Your task to perform on an android device: open app "Instagram" Image 0: 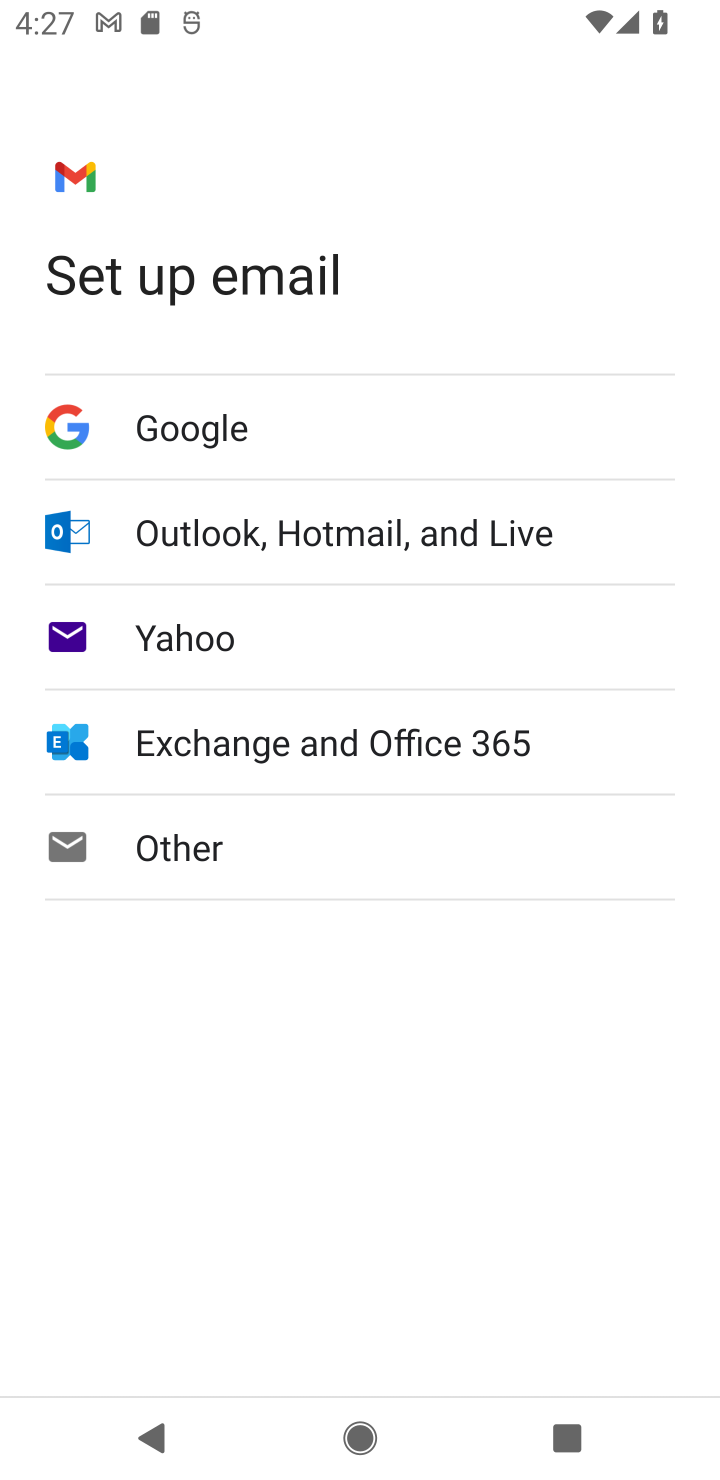
Step 0: press home button
Your task to perform on an android device: open app "Instagram" Image 1: 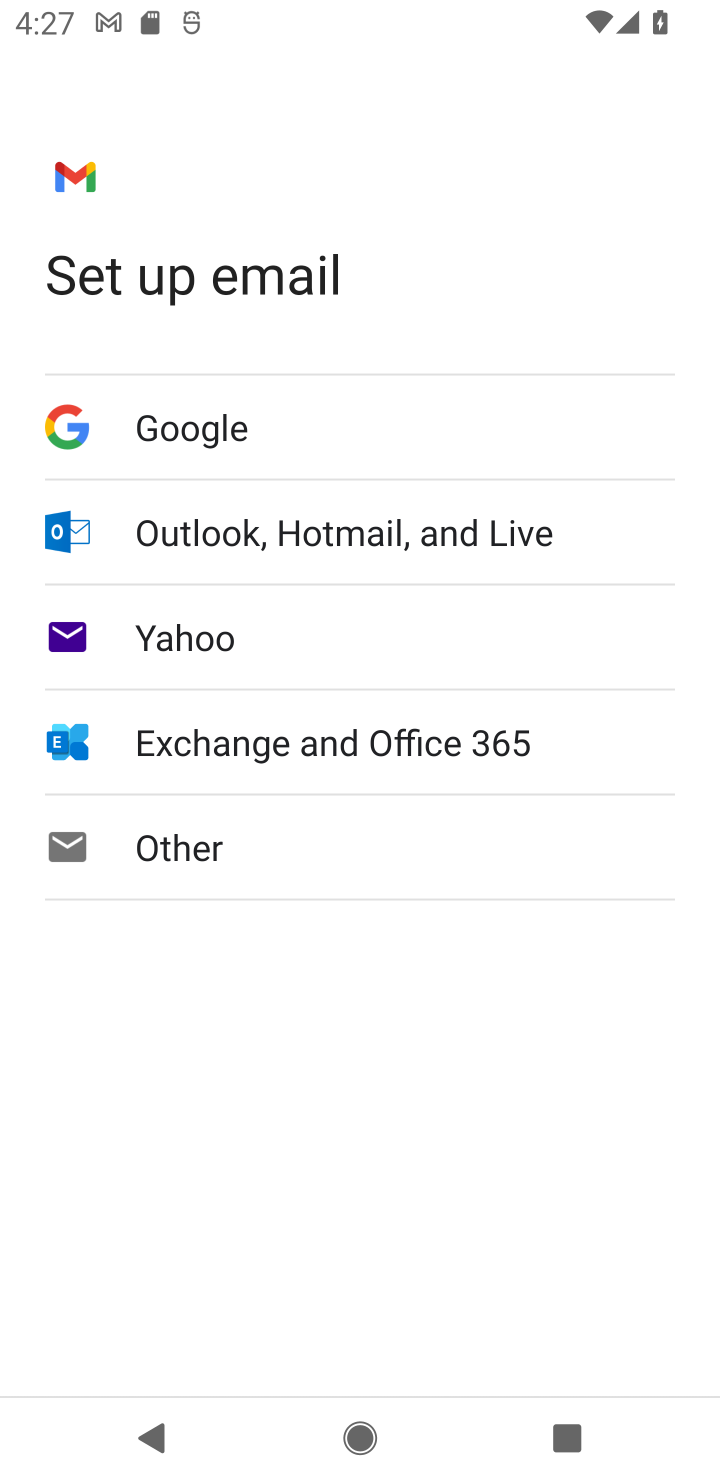
Step 1: press home button
Your task to perform on an android device: open app "Instagram" Image 2: 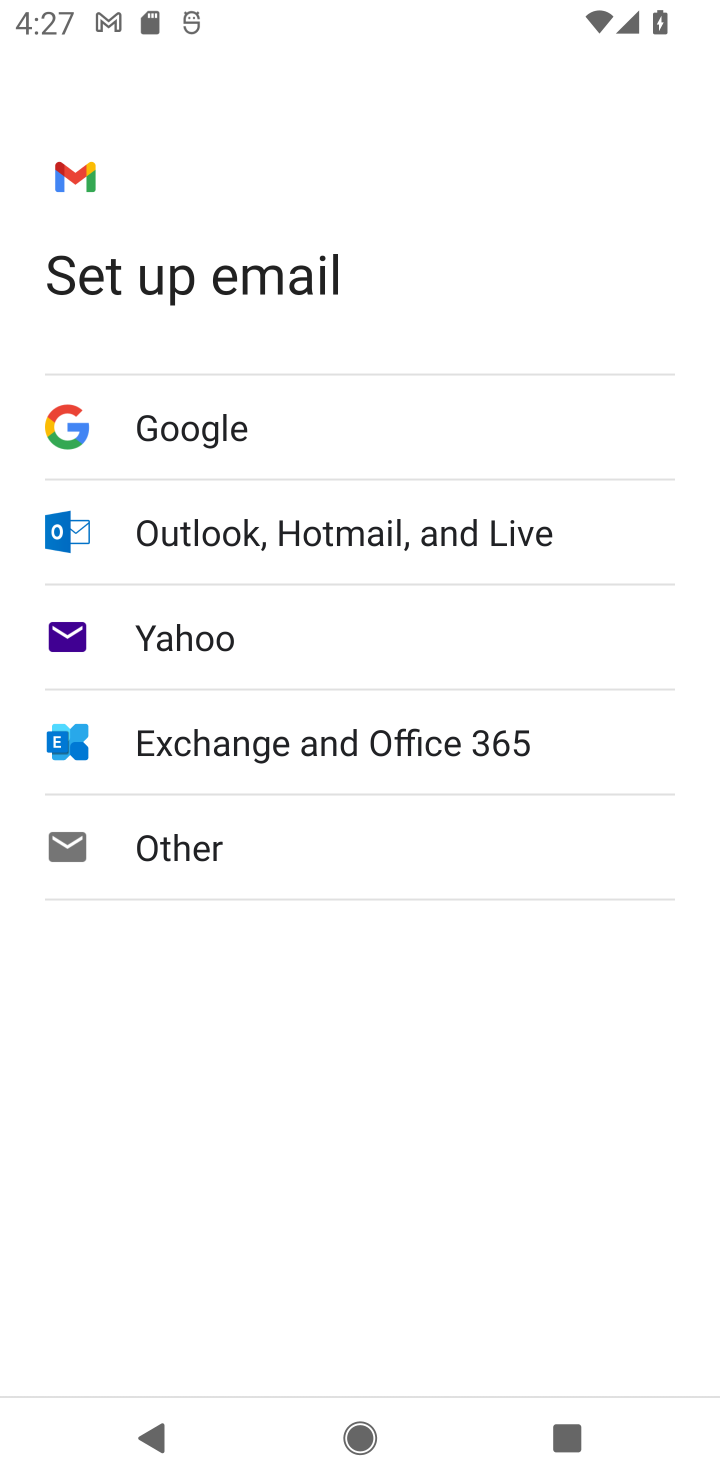
Step 2: press home button
Your task to perform on an android device: open app "Instagram" Image 3: 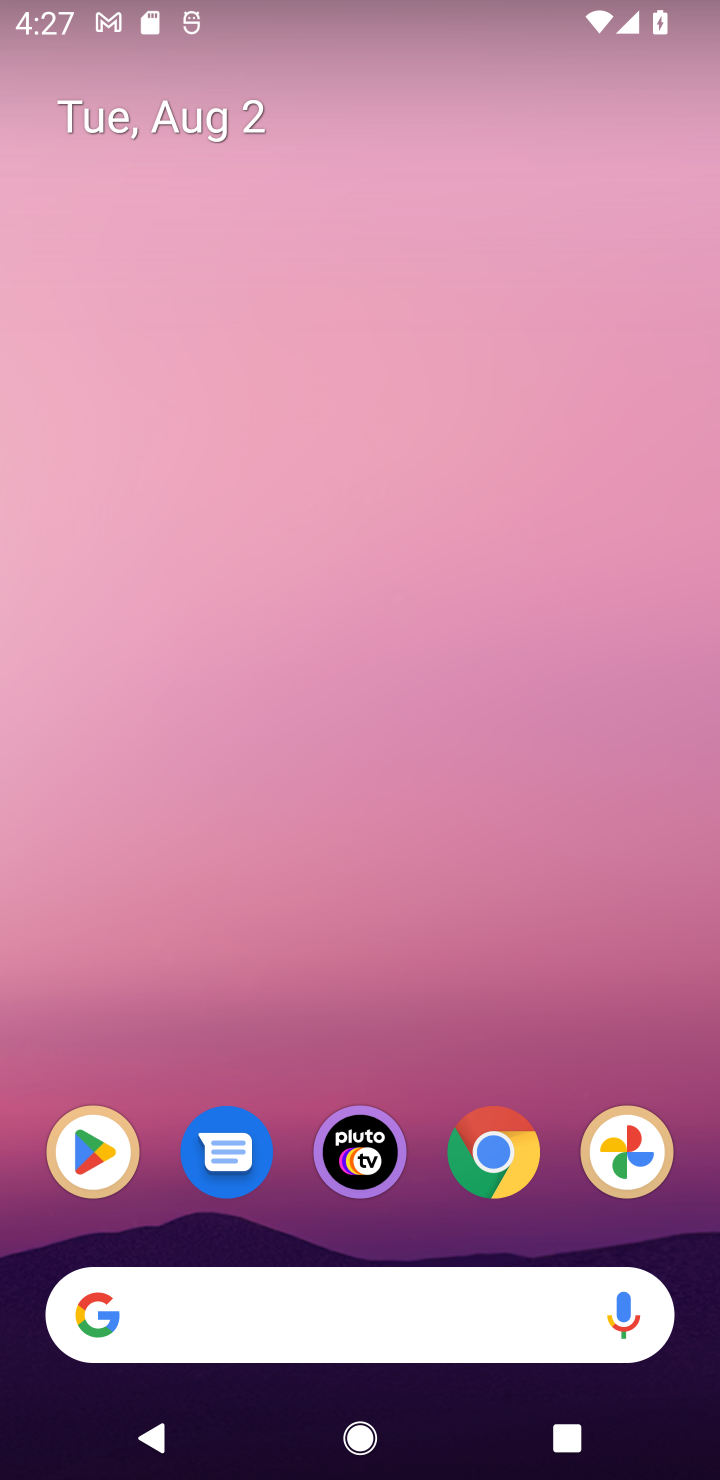
Step 3: drag from (492, 781) to (616, 21)
Your task to perform on an android device: open app "Instagram" Image 4: 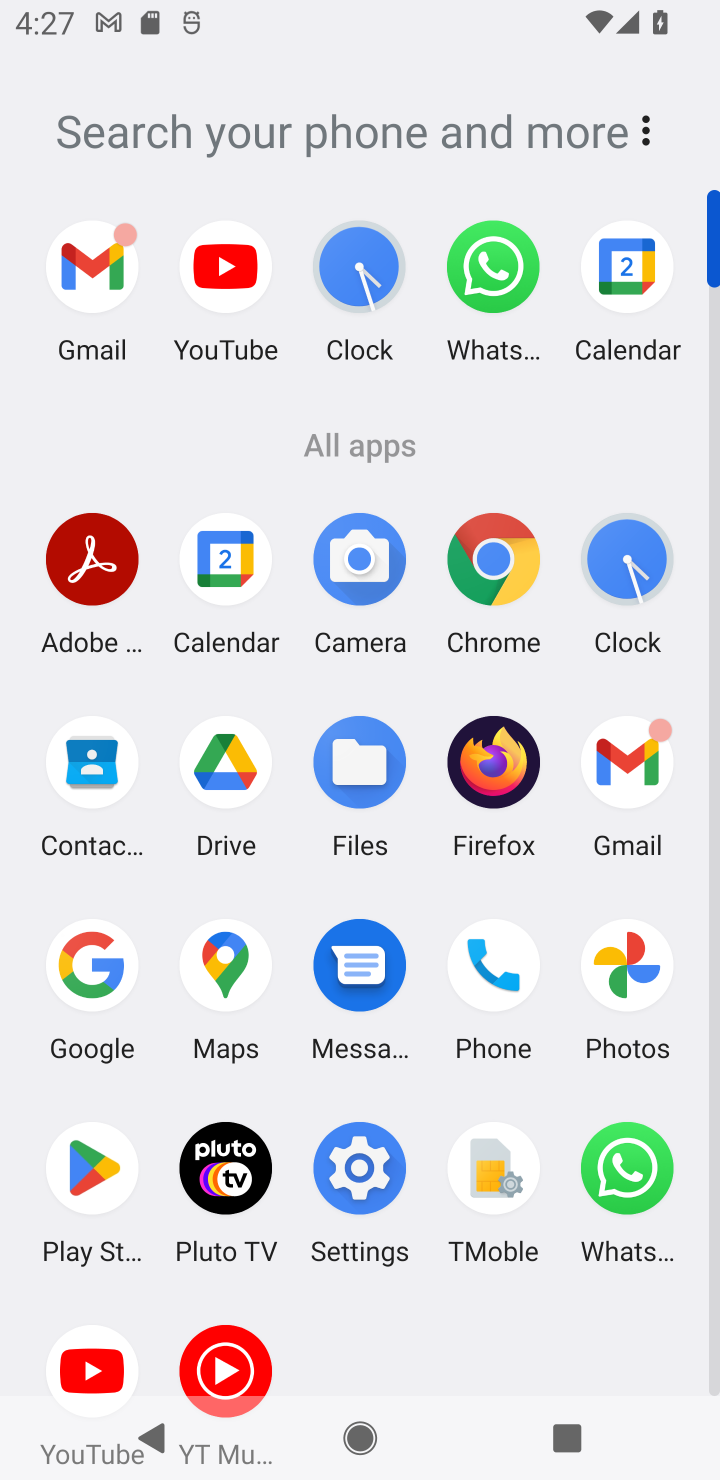
Step 4: click (103, 1154)
Your task to perform on an android device: open app "Instagram" Image 5: 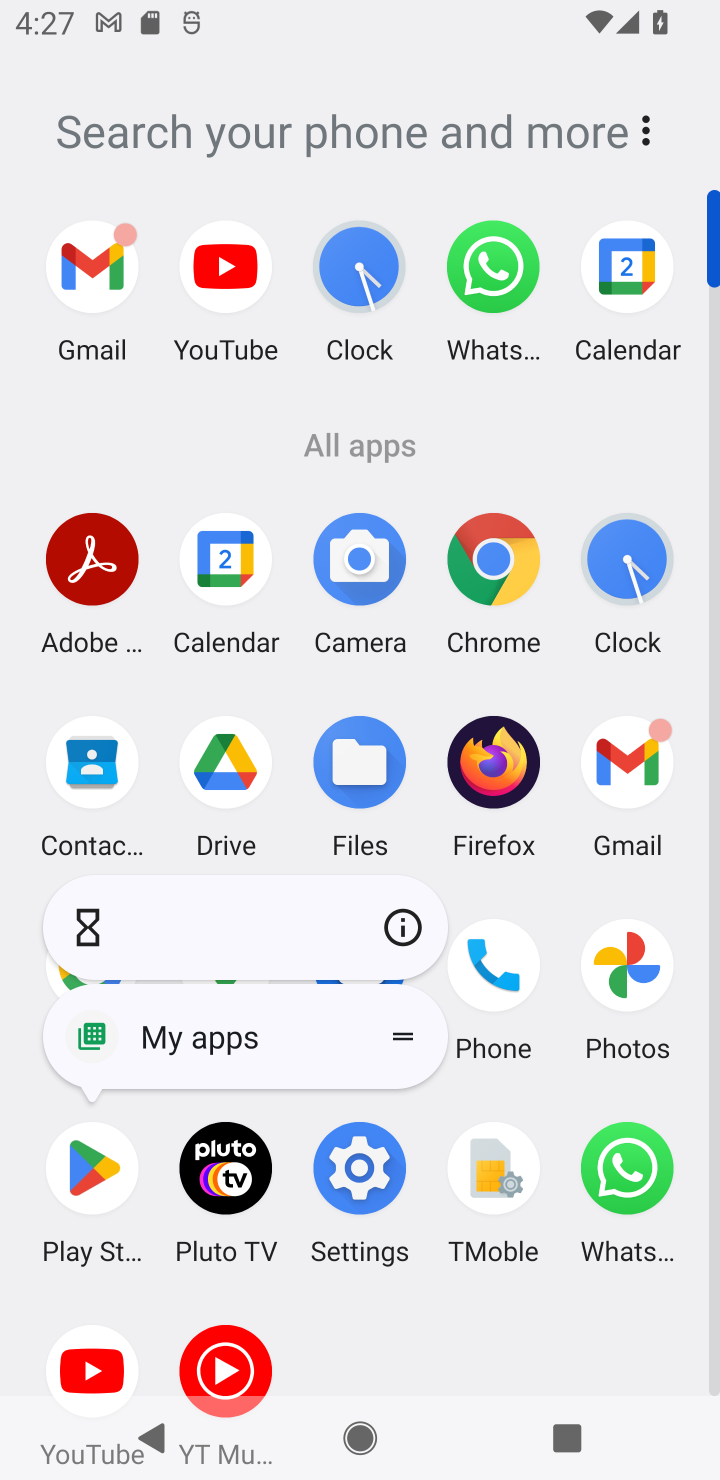
Step 5: click (81, 1193)
Your task to perform on an android device: open app "Instagram" Image 6: 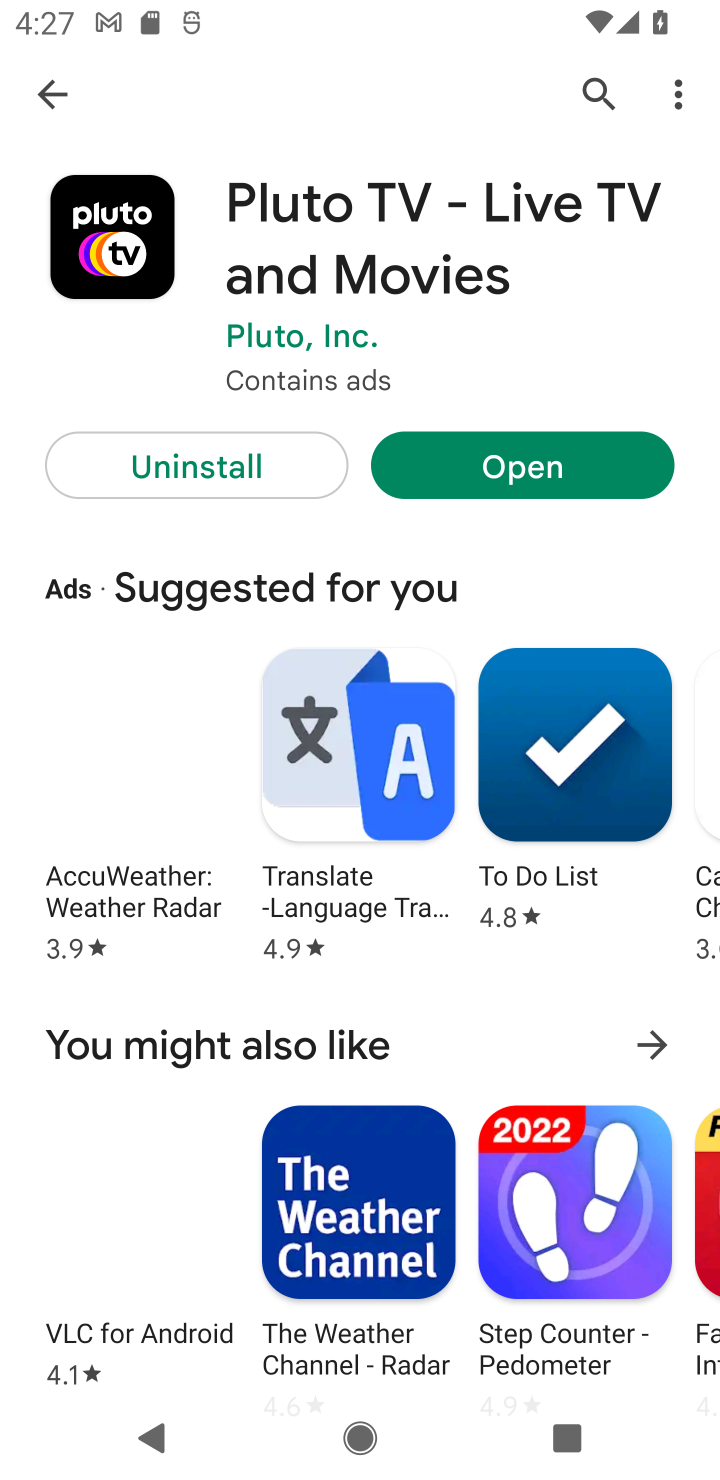
Step 6: click (605, 100)
Your task to perform on an android device: open app "Instagram" Image 7: 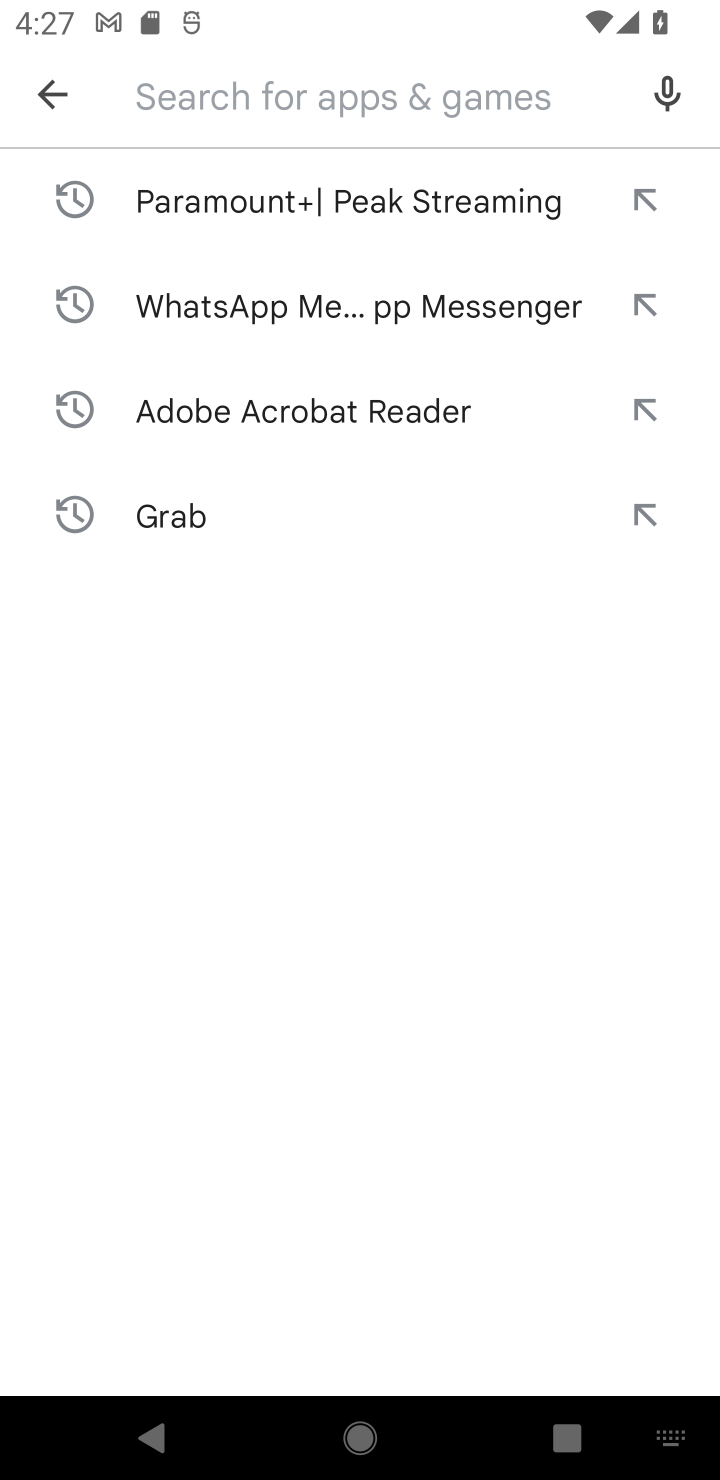
Step 7: type "Instagram"
Your task to perform on an android device: open app "Instagram" Image 8: 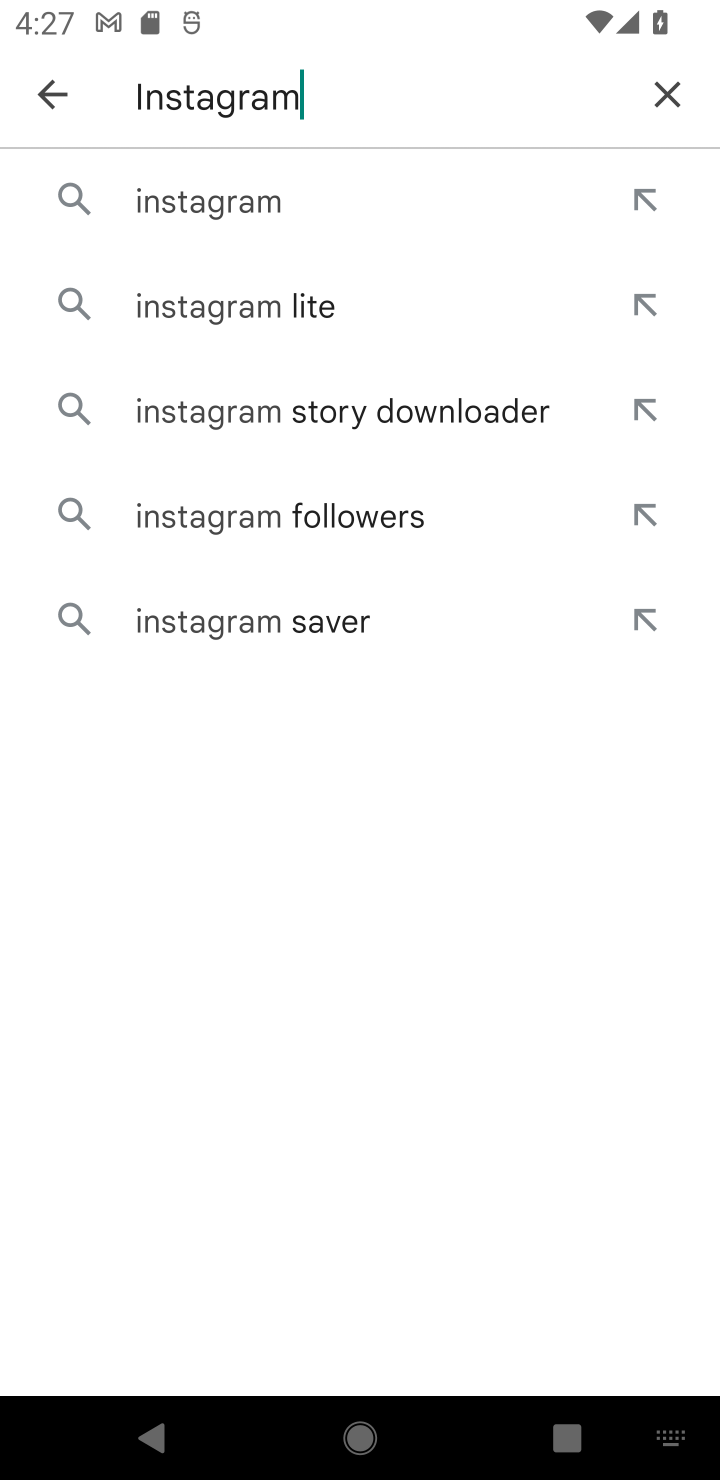
Step 8: press enter
Your task to perform on an android device: open app "Instagram" Image 9: 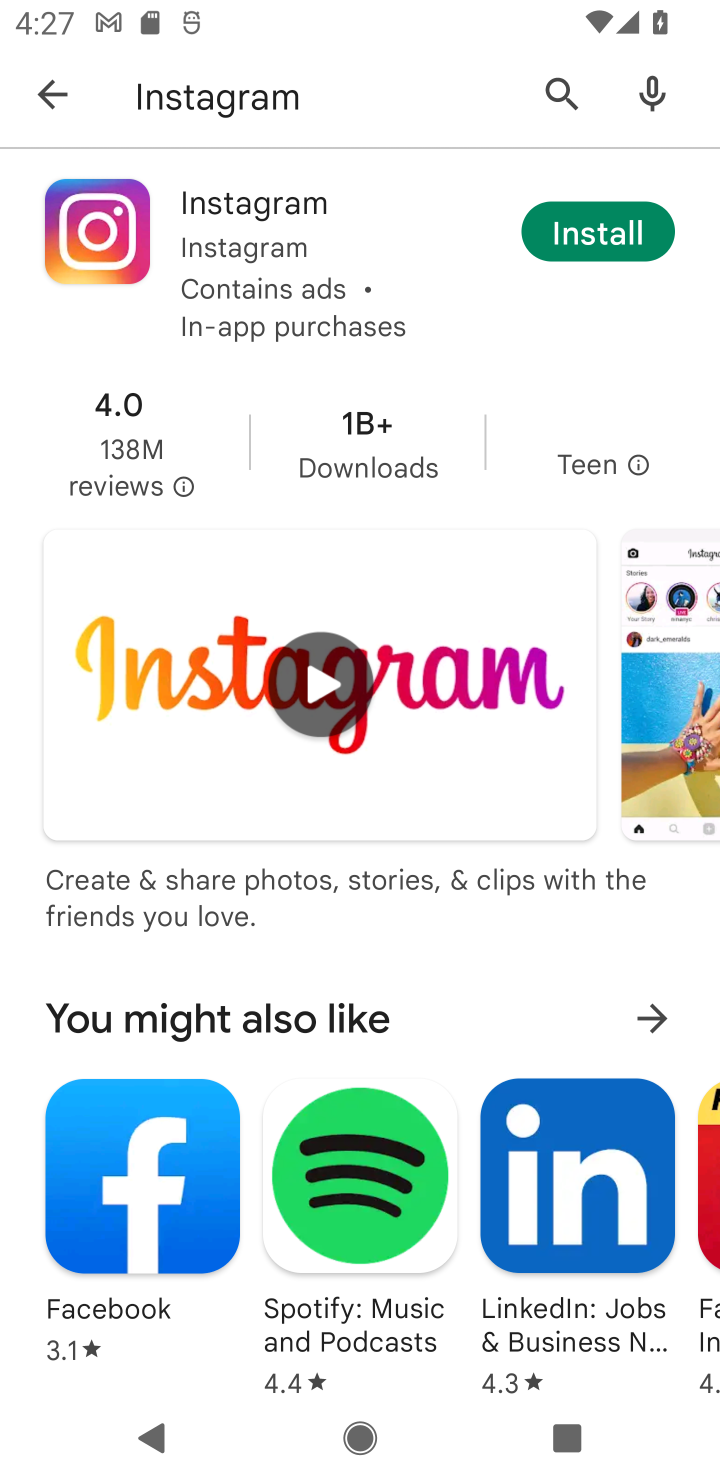
Step 9: task complete